Your task to perform on an android device: turn off sleep mode Image 0: 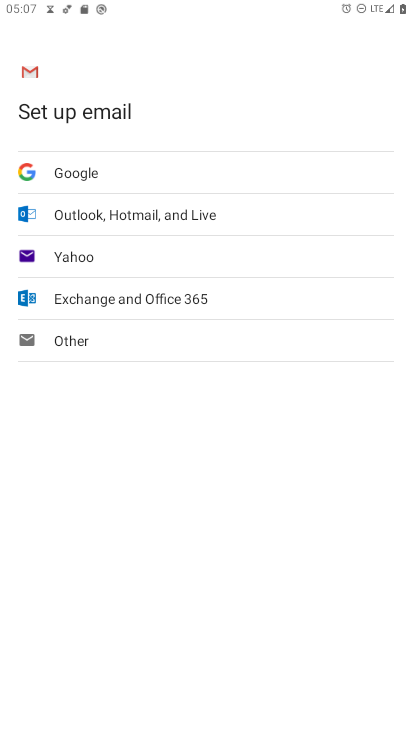
Step 0: press home button
Your task to perform on an android device: turn off sleep mode Image 1: 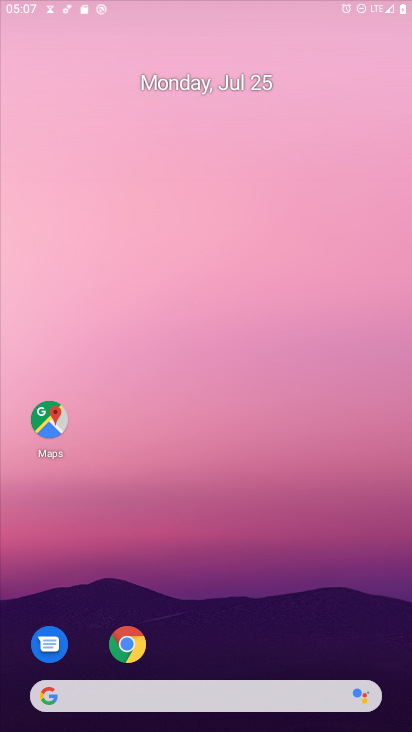
Step 1: drag from (233, 613) to (147, 149)
Your task to perform on an android device: turn off sleep mode Image 2: 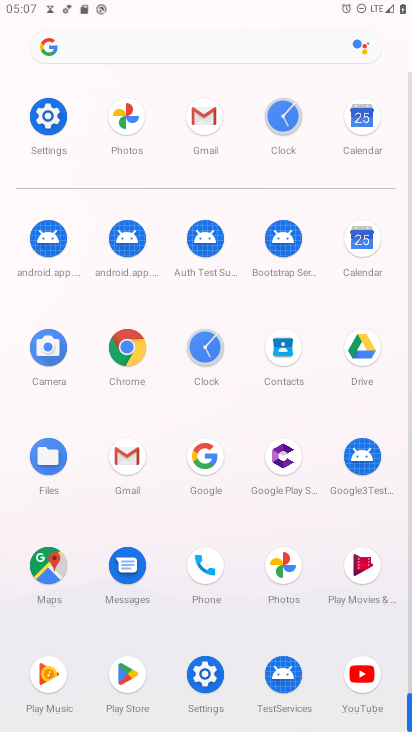
Step 2: click (45, 112)
Your task to perform on an android device: turn off sleep mode Image 3: 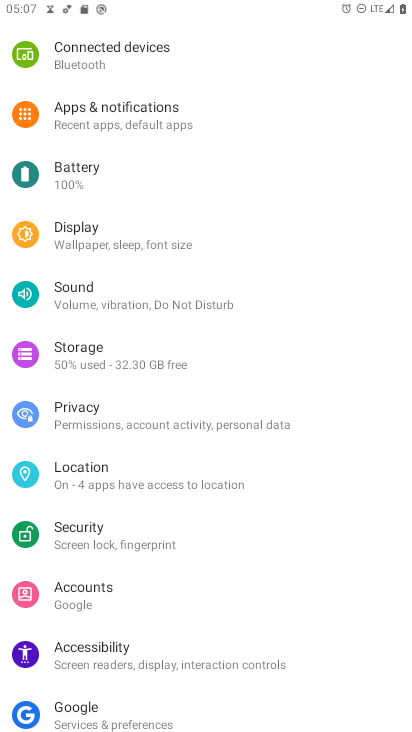
Step 3: click (97, 229)
Your task to perform on an android device: turn off sleep mode Image 4: 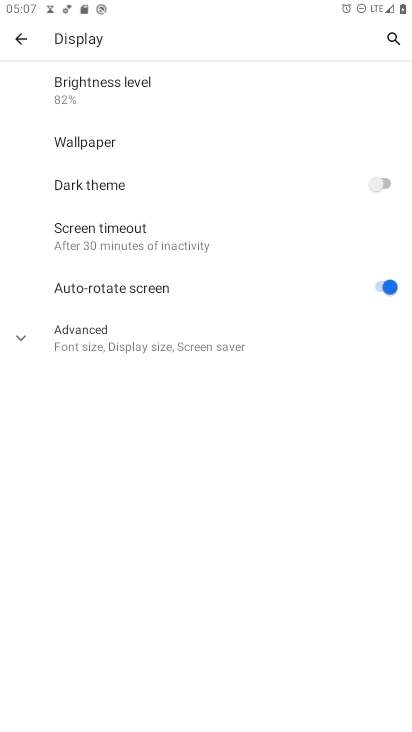
Step 4: click (22, 335)
Your task to perform on an android device: turn off sleep mode Image 5: 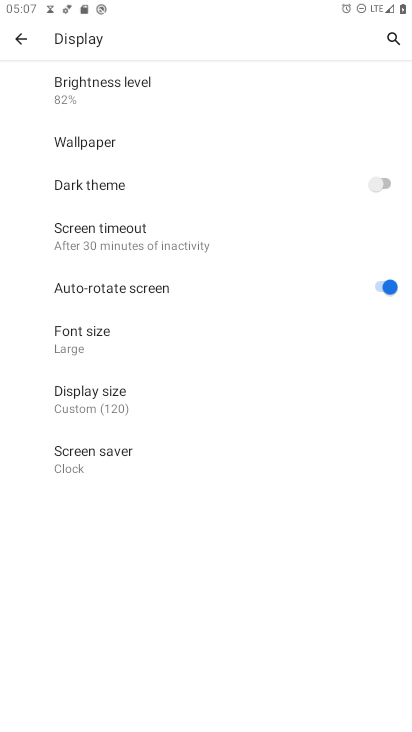
Step 5: task complete